Your task to perform on an android device: turn off priority inbox in the gmail app Image 0: 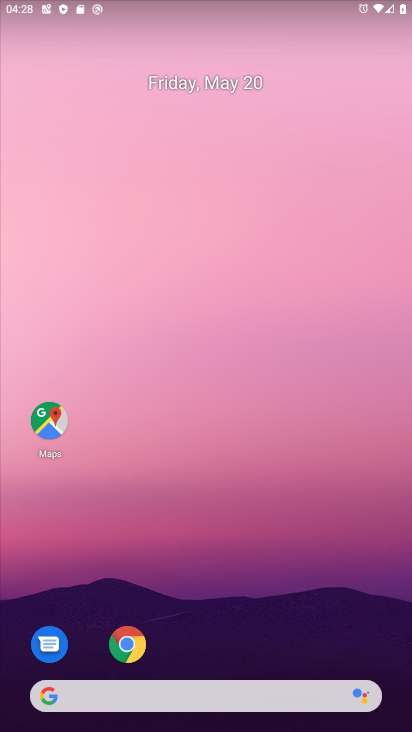
Step 0: drag from (269, 594) to (273, 136)
Your task to perform on an android device: turn off priority inbox in the gmail app Image 1: 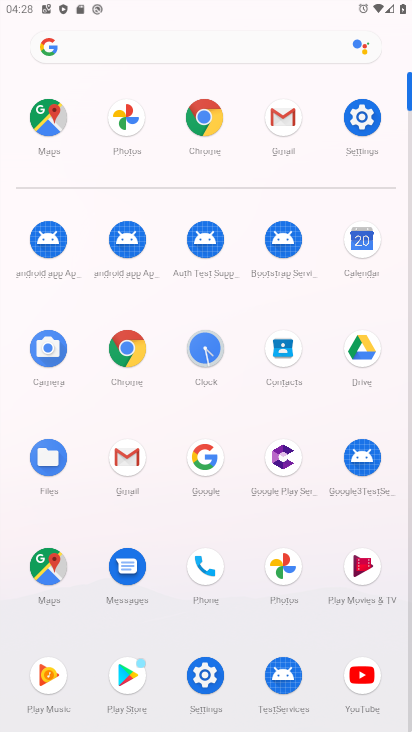
Step 1: click (122, 491)
Your task to perform on an android device: turn off priority inbox in the gmail app Image 2: 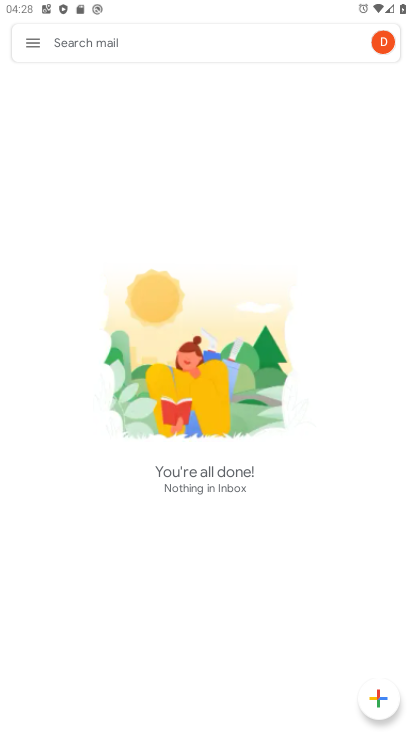
Step 2: click (23, 52)
Your task to perform on an android device: turn off priority inbox in the gmail app Image 3: 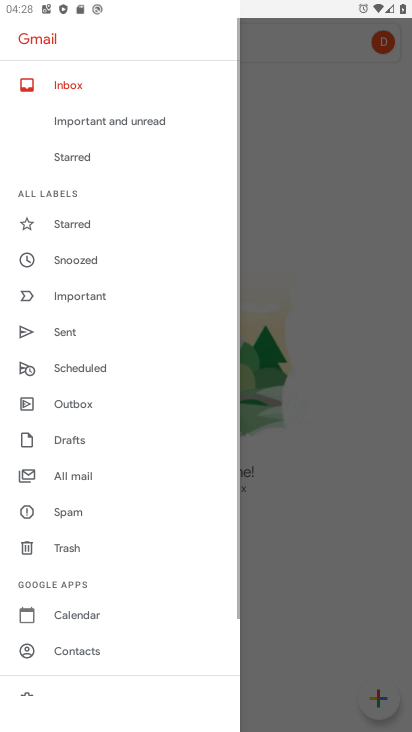
Step 3: click (83, 632)
Your task to perform on an android device: turn off priority inbox in the gmail app Image 4: 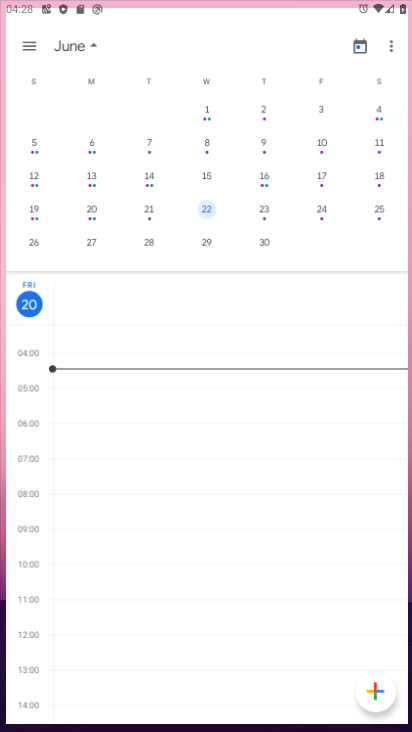
Step 4: task complete